Your task to perform on an android device: Open calendar and show me the fourth week of next month Image 0: 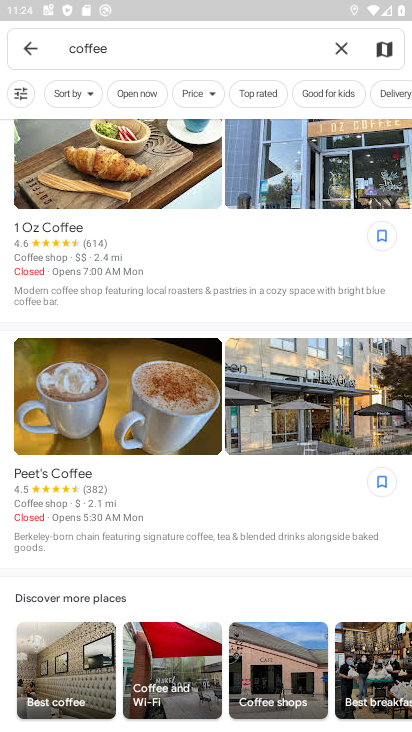
Step 0: press home button
Your task to perform on an android device: Open calendar and show me the fourth week of next month Image 1: 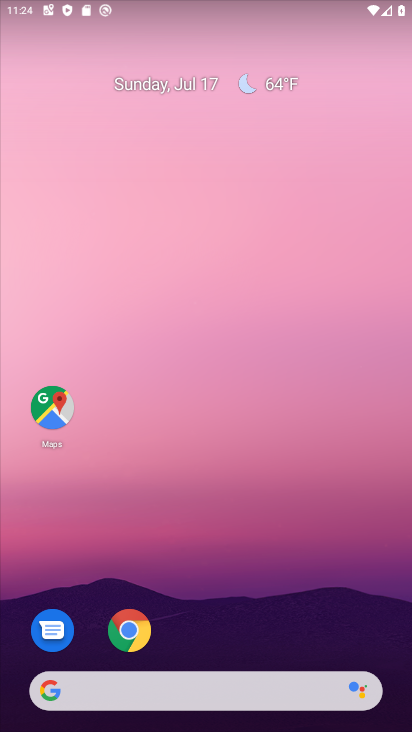
Step 1: drag from (372, 632) to (339, 220)
Your task to perform on an android device: Open calendar and show me the fourth week of next month Image 2: 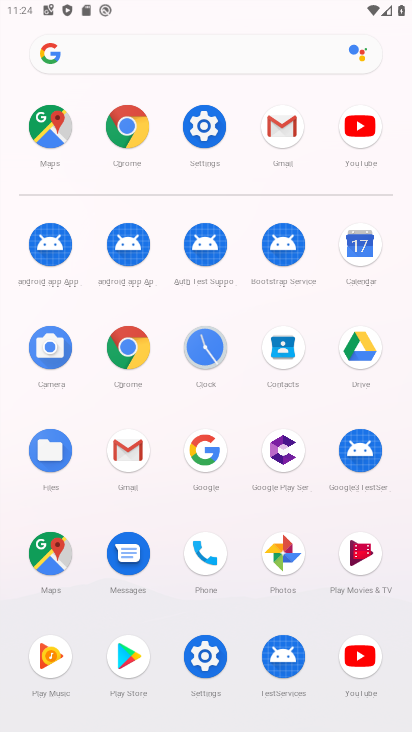
Step 2: click (357, 242)
Your task to perform on an android device: Open calendar and show me the fourth week of next month Image 3: 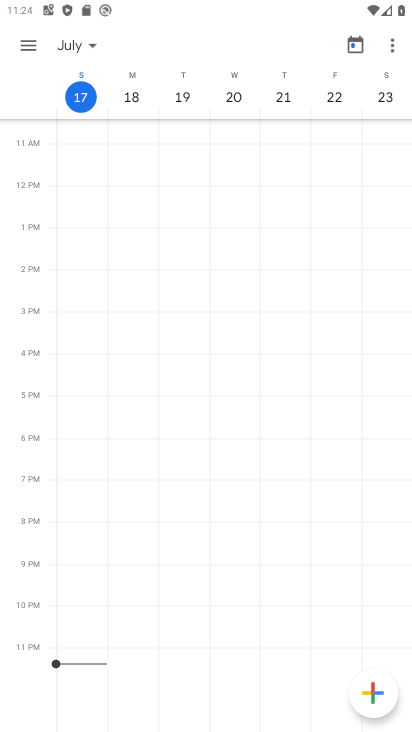
Step 3: click (90, 43)
Your task to perform on an android device: Open calendar and show me the fourth week of next month Image 4: 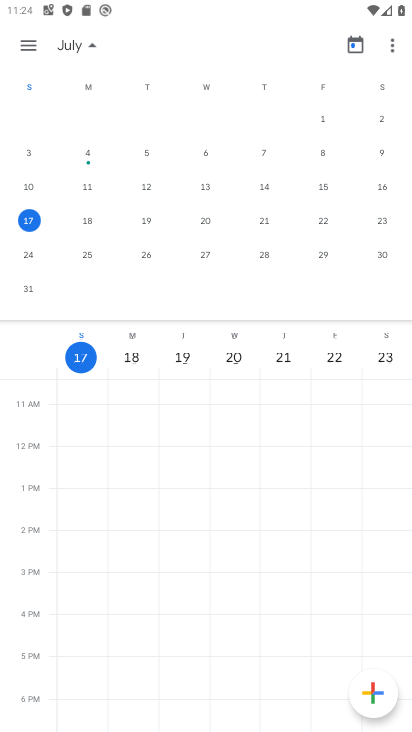
Step 4: drag from (380, 217) to (19, 178)
Your task to perform on an android device: Open calendar and show me the fourth week of next month Image 5: 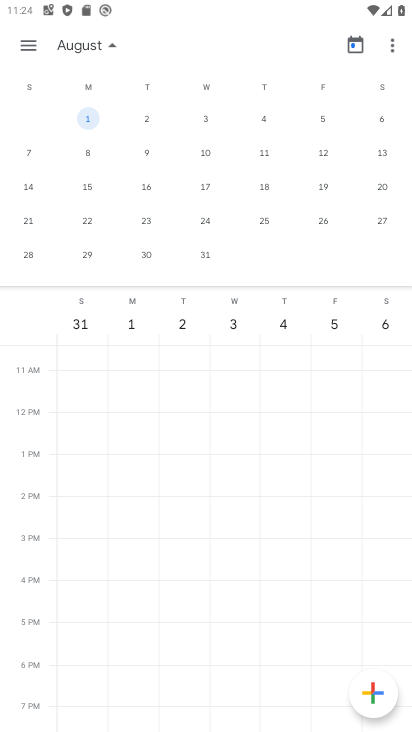
Step 5: click (23, 254)
Your task to perform on an android device: Open calendar and show me the fourth week of next month Image 6: 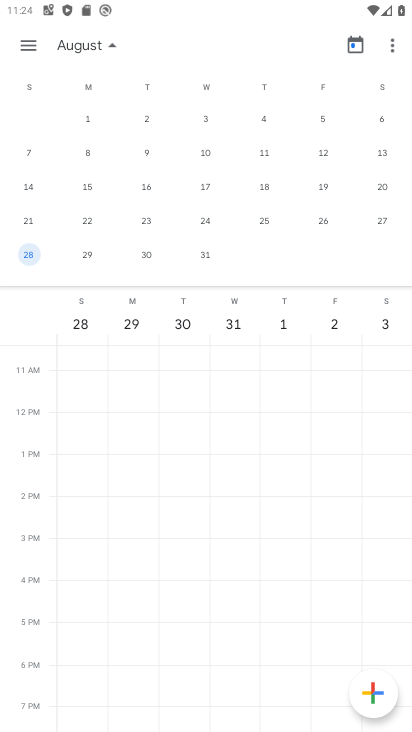
Step 6: task complete